Your task to perform on an android device: Do I have any events tomorrow? Image 0: 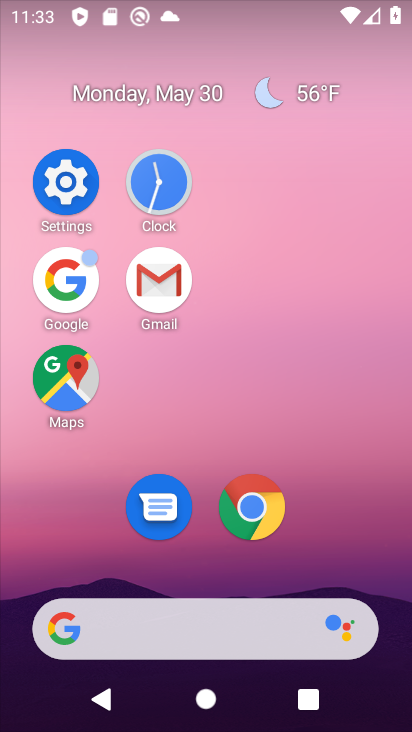
Step 0: drag from (371, 555) to (323, 88)
Your task to perform on an android device: Do I have any events tomorrow? Image 1: 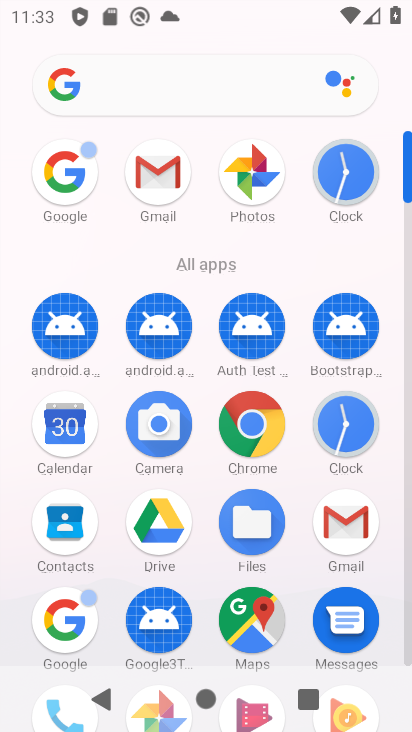
Step 1: drag from (70, 441) to (218, 219)
Your task to perform on an android device: Do I have any events tomorrow? Image 2: 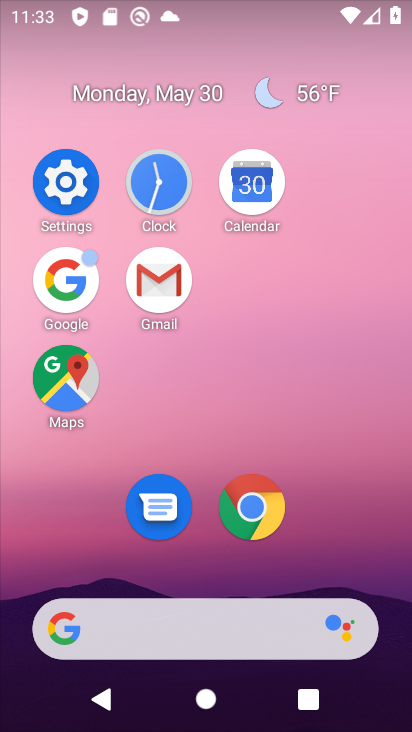
Step 2: click (266, 192)
Your task to perform on an android device: Do I have any events tomorrow? Image 3: 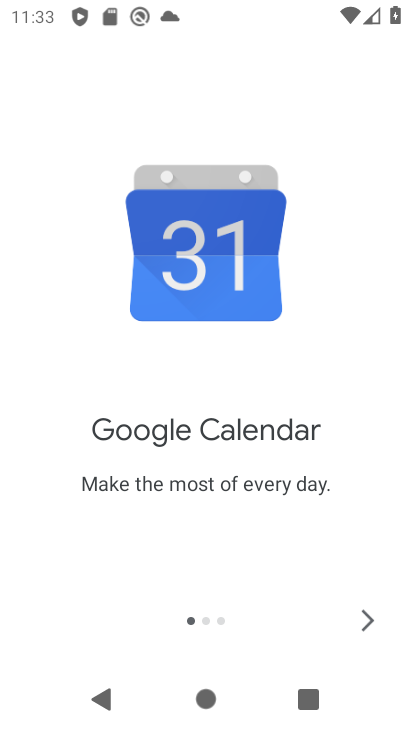
Step 3: click (372, 628)
Your task to perform on an android device: Do I have any events tomorrow? Image 4: 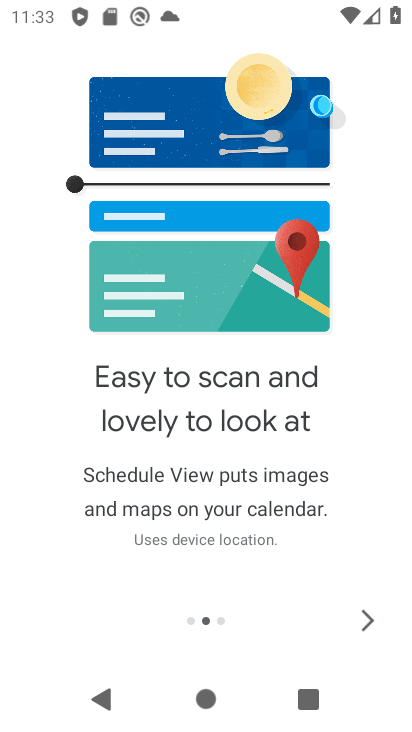
Step 4: click (372, 628)
Your task to perform on an android device: Do I have any events tomorrow? Image 5: 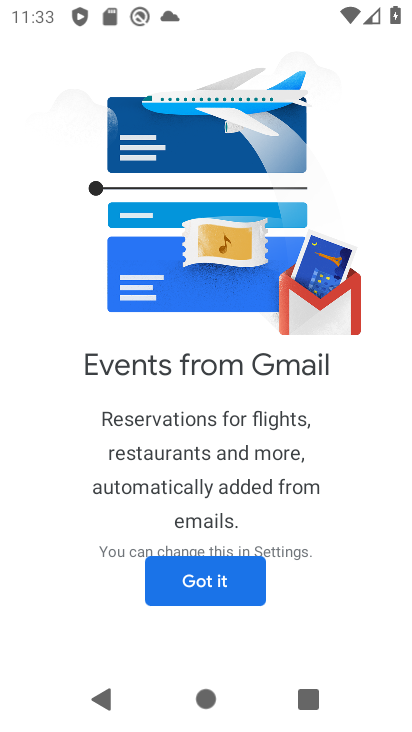
Step 5: click (372, 628)
Your task to perform on an android device: Do I have any events tomorrow? Image 6: 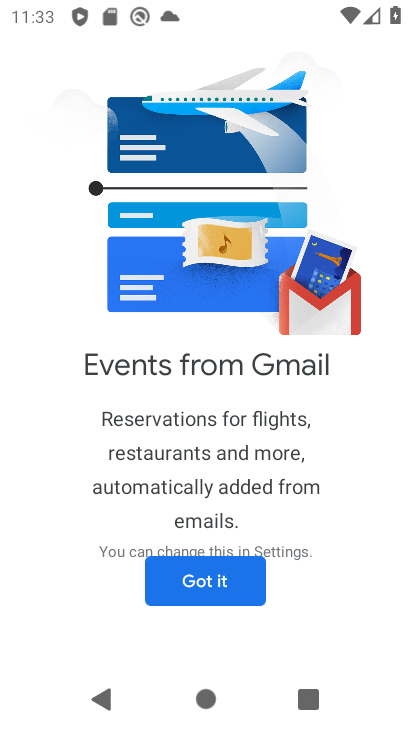
Step 6: click (253, 603)
Your task to perform on an android device: Do I have any events tomorrow? Image 7: 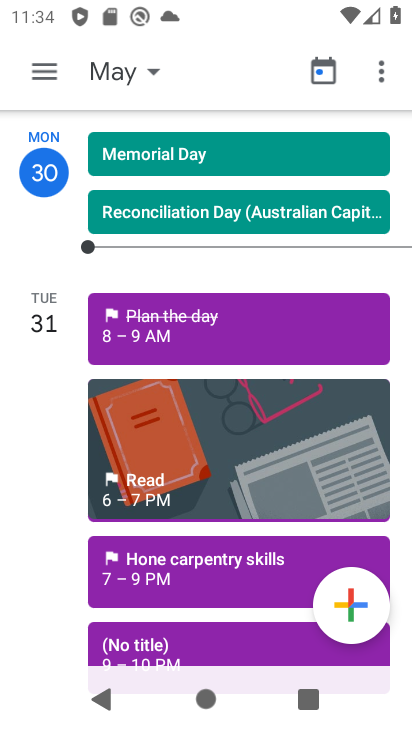
Step 7: click (59, 317)
Your task to perform on an android device: Do I have any events tomorrow? Image 8: 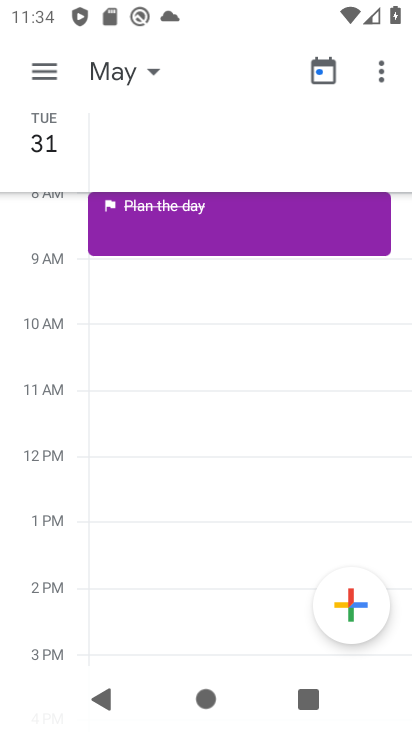
Step 8: task complete